Your task to perform on an android device: turn off improve location accuracy Image 0: 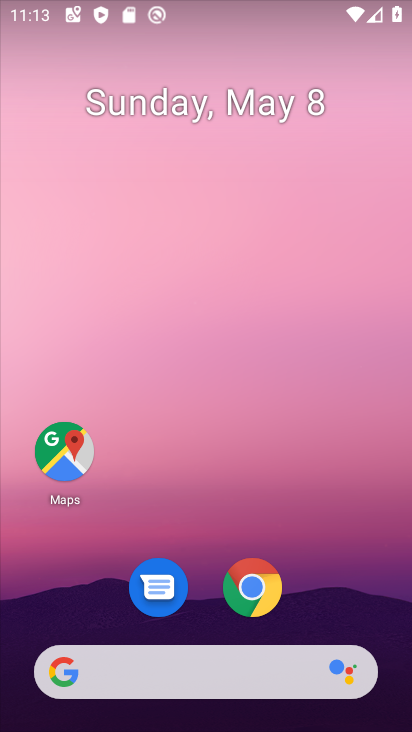
Step 0: click (167, 155)
Your task to perform on an android device: turn off improve location accuracy Image 1: 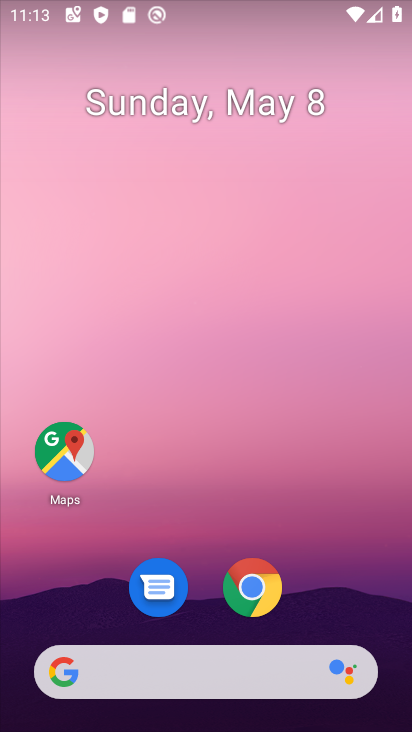
Step 1: drag from (369, 595) to (161, 278)
Your task to perform on an android device: turn off improve location accuracy Image 2: 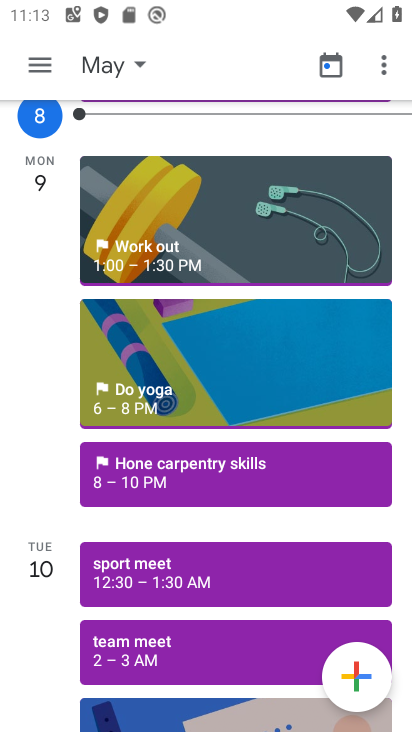
Step 2: drag from (294, 520) to (207, 67)
Your task to perform on an android device: turn off improve location accuracy Image 3: 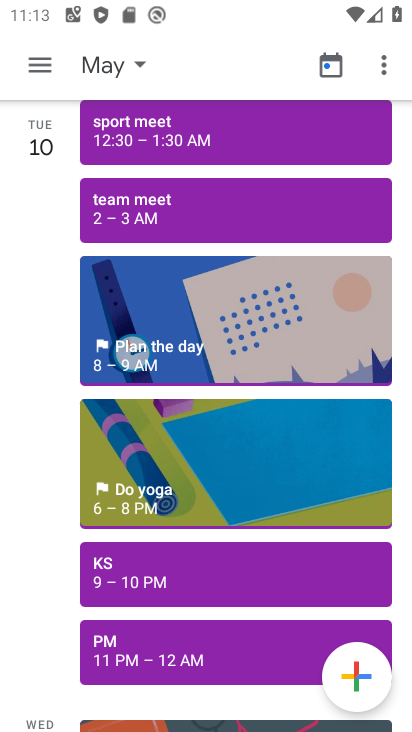
Step 3: press home button
Your task to perform on an android device: turn off improve location accuracy Image 4: 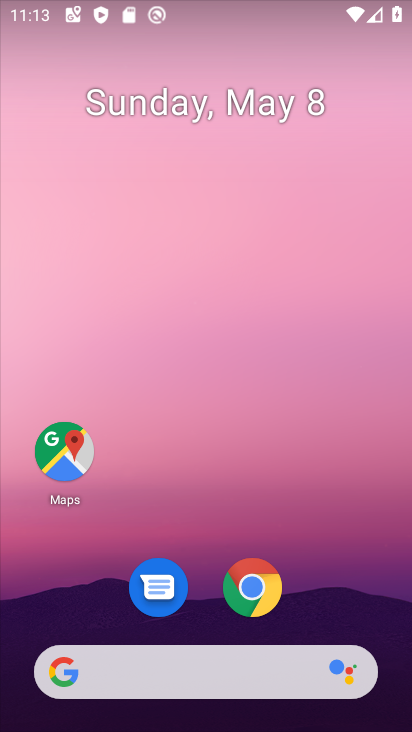
Step 4: drag from (302, 553) to (129, 9)
Your task to perform on an android device: turn off improve location accuracy Image 5: 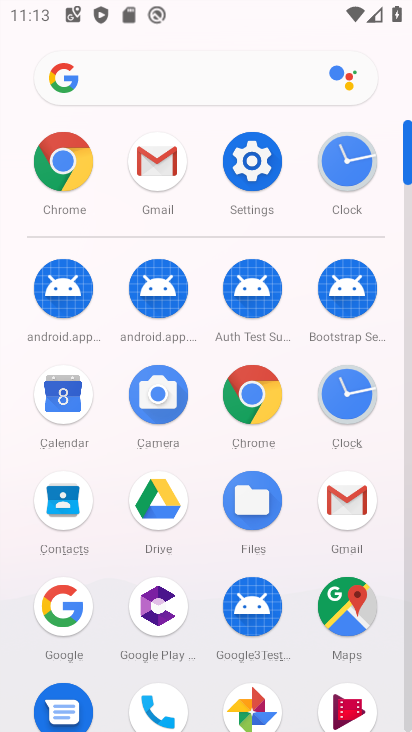
Step 5: click (247, 163)
Your task to perform on an android device: turn off improve location accuracy Image 6: 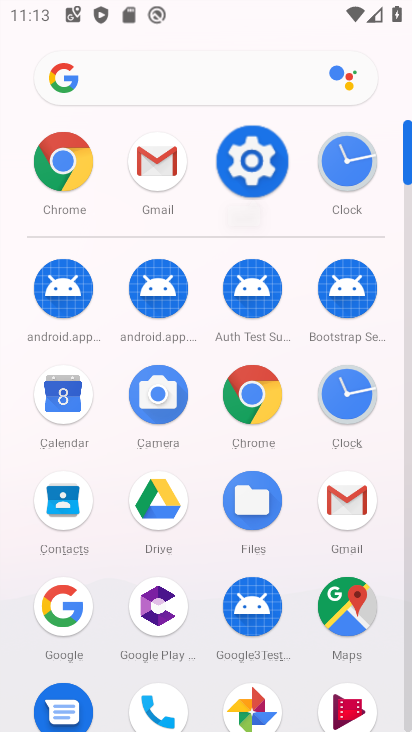
Step 6: click (247, 163)
Your task to perform on an android device: turn off improve location accuracy Image 7: 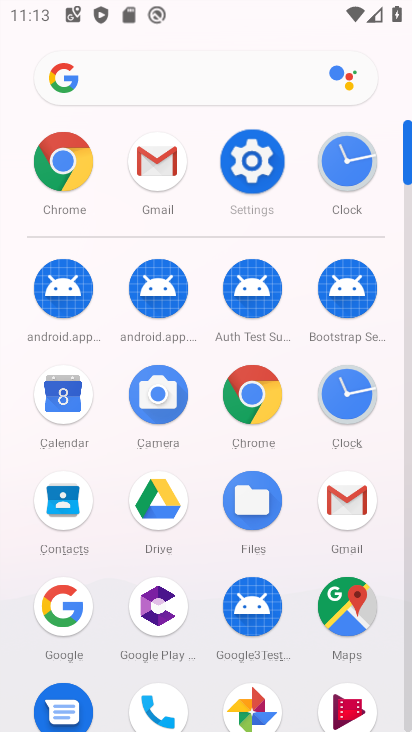
Step 7: click (247, 163)
Your task to perform on an android device: turn off improve location accuracy Image 8: 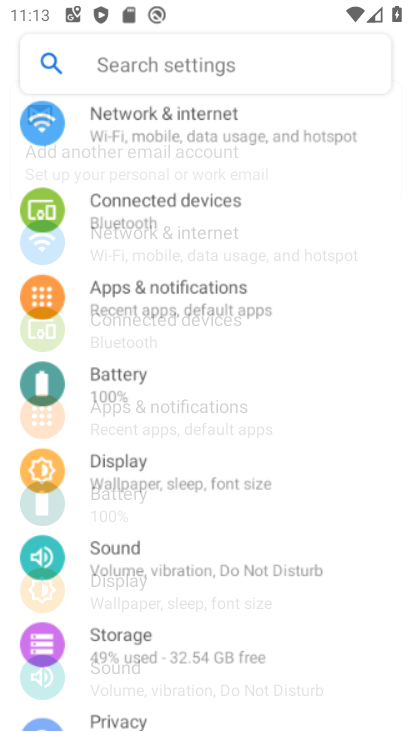
Step 8: click (247, 163)
Your task to perform on an android device: turn off improve location accuracy Image 9: 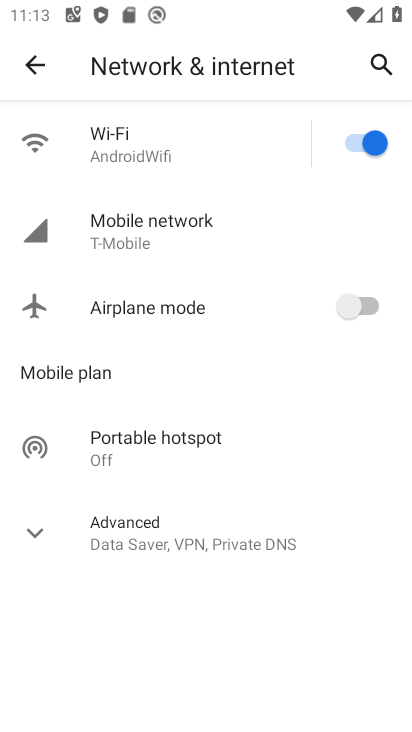
Step 9: click (37, 63)
Your task to perform on an android device: turn off improve location accuracy Image 10: 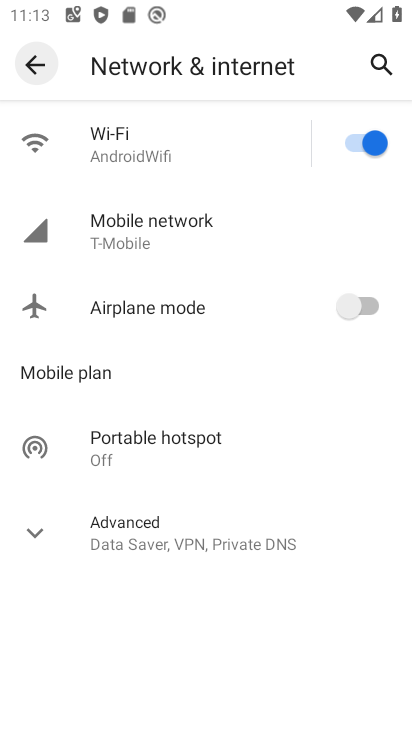
Step 10: click (37, 63)
Your task to perform on an android device: turn off improve location accuracy Image 11: 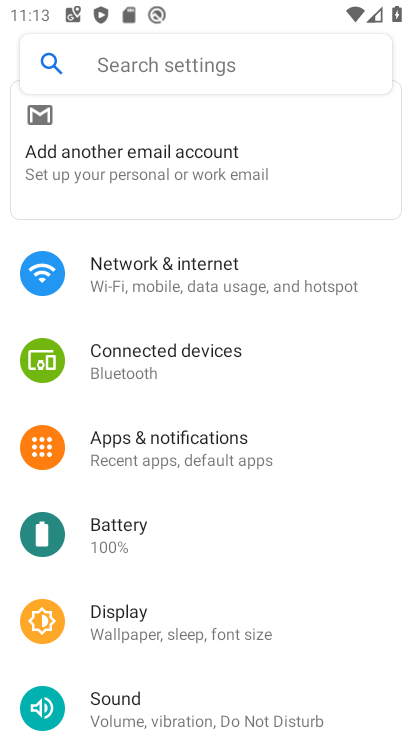
Step 11: click (167, 131)
Your task to perform on an android device: turn off improve location accuracy Image 12: 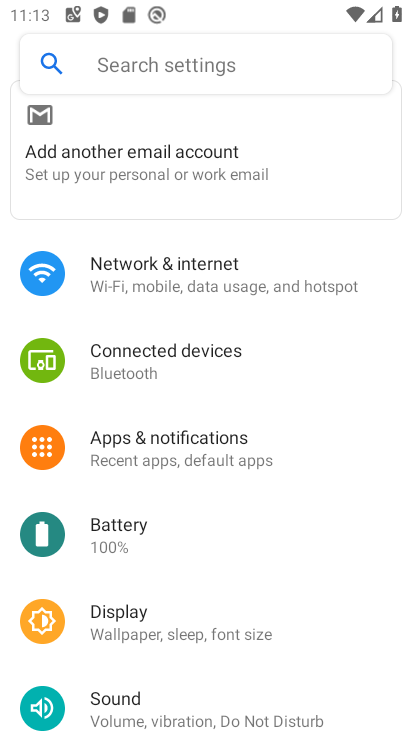
Step 12: drag from (184, 645) to (152, 227)
Your task to perform on an android device: turn off improve location accuracy Image 13: 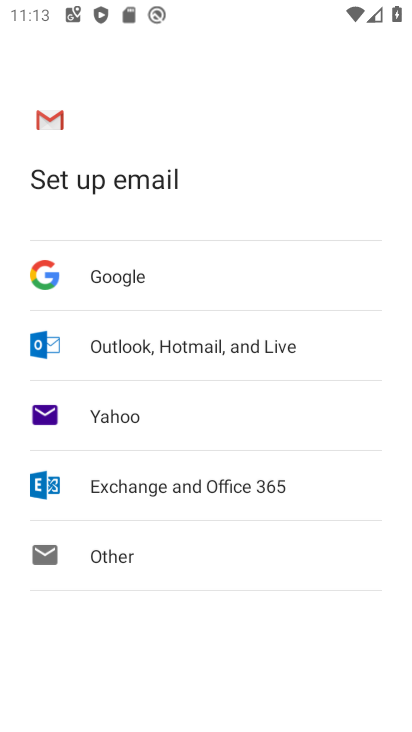
Step 13: drag from (155, 456) to (139, 135)
Your task to perform on an android device: turn off improve location accuracy Image 14: 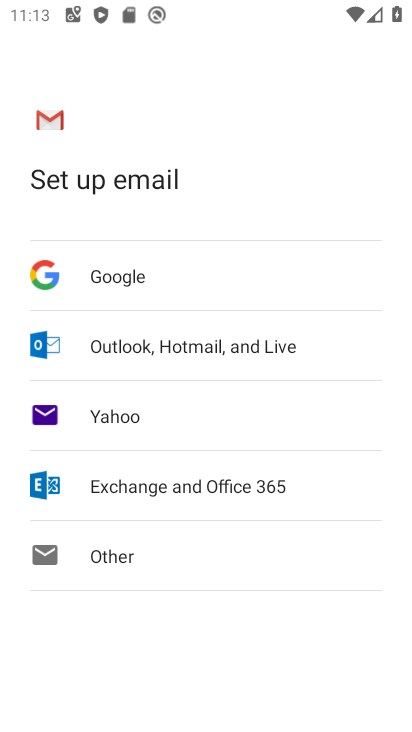
Step 14: press back button
Your task to perform on an android device: turn off improve location accuracy Image 15: 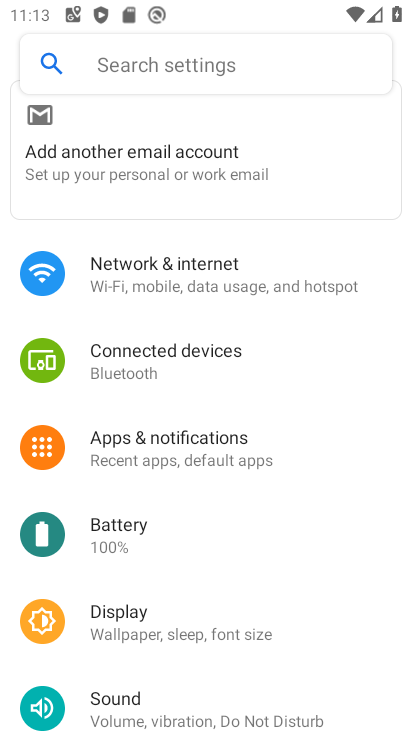
Step 15: drag from (190, 599) to (165, 176)
Your task to perform on an android device: turn off improve location accuracy Image 16: 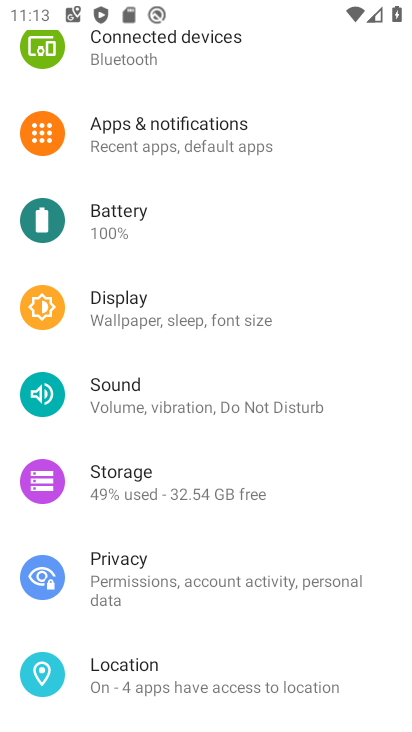
Step 16: click (148, 676)
Your task to perform on an android device: turn off improve location accuracy Image 17: 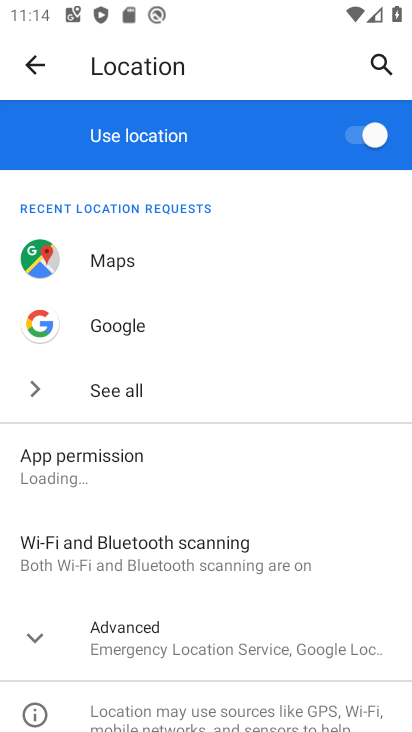
Step 17: click (122, 648)
Your task to perform on an android device: turn off improve location accuracy Image 18: 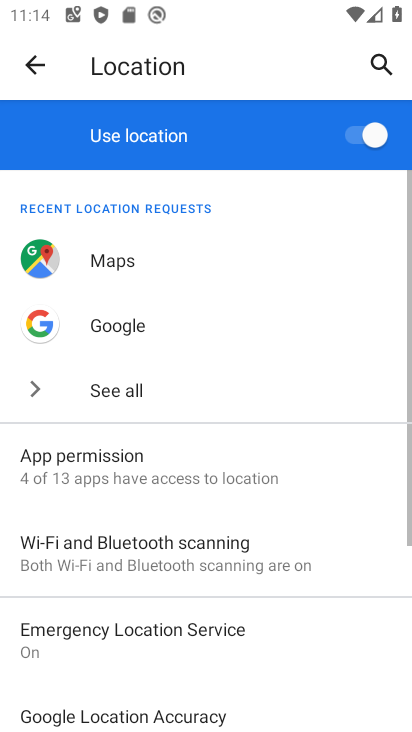
Step 18: drag from (150, 619) to (173, 68)
Your task to perform on an android device: turn off improve location accuracy Image 19: 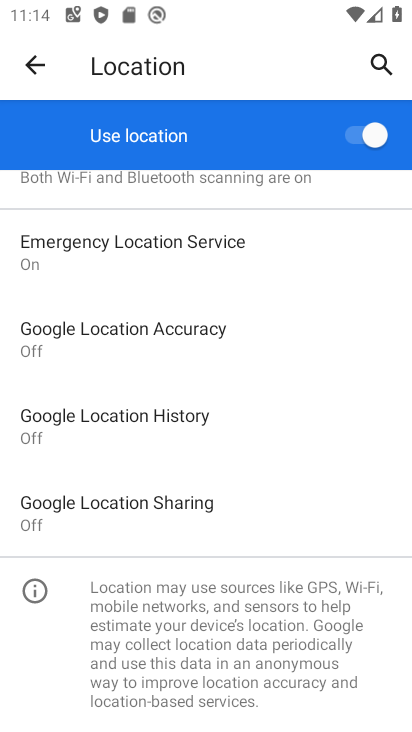
Step 19: click (78, 333)
Your task to perform on an android device: turn off improve location accuracy Image 20: 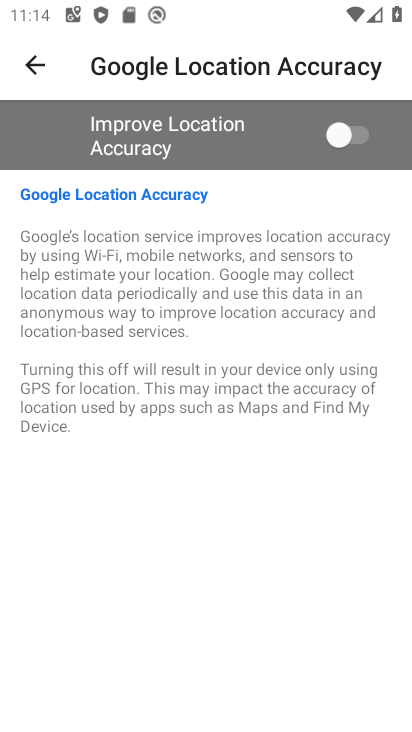
Step 20: task complete